Your task to perform on an android device: toggle notifications settings in the gmail app Image 0: 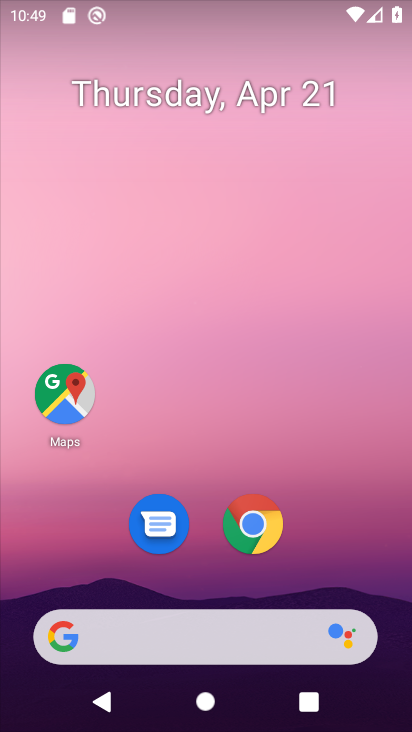
Step 0: drag from (346, 547) to (357, 110)
Your task to perform on an android device: toggle notifications settings in the gmail app Image 1: 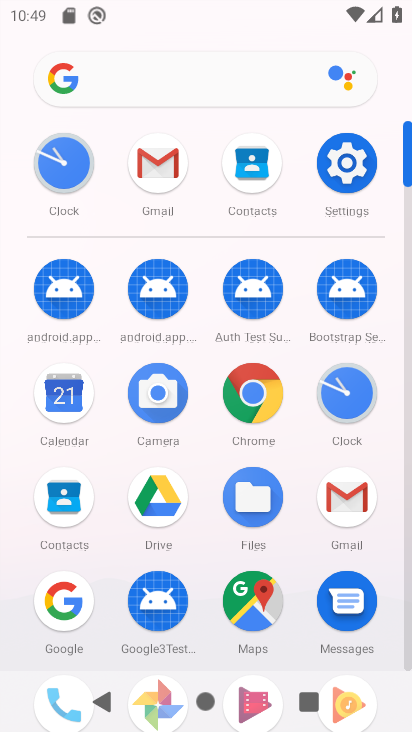
Step 1: click (157, 171)
Your task to perform on an android device: toggle notifications settings in the gmail app Image 2: 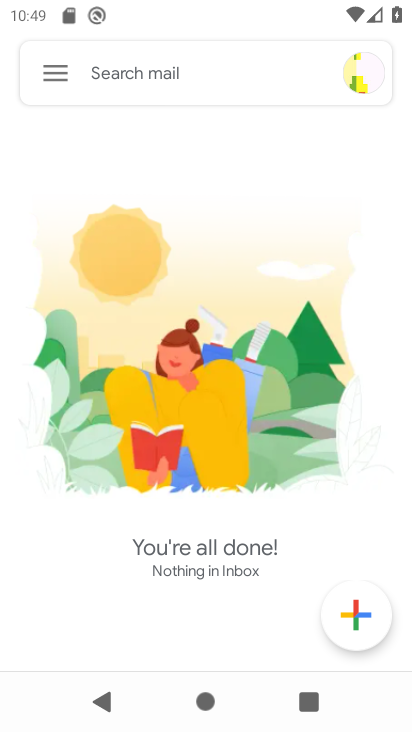
Step 2: click (60, 66)
Your task to perform on an android device: toggle notifications settings in the gmail app Image 3: 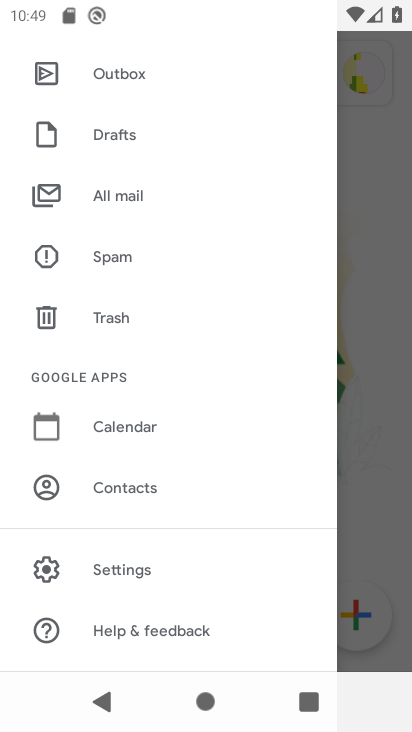
Step 3: click (131, 564)
Your task to perform on an android device: toggle notifications settings in the gmail app Image 4: 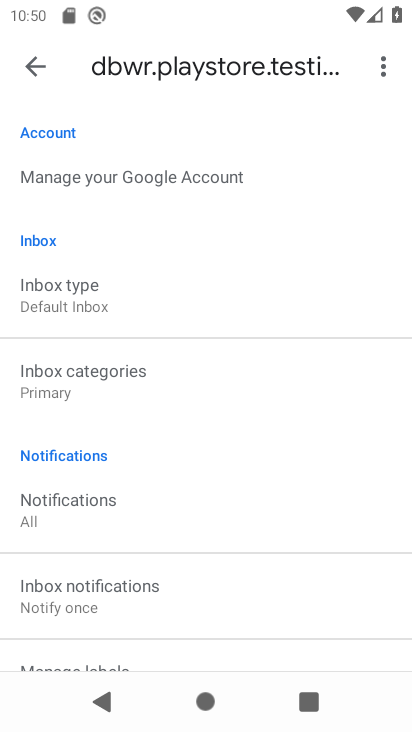
Step 4: drag from (247, 578) to (321, 95)
Your task to perform on an android device: toggle notifications settings in the gmail app Image 5: 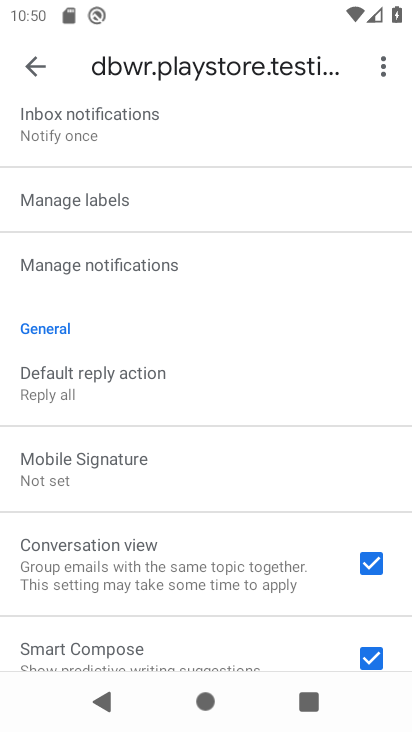
Step 5: click (238, 269)
Your task to perform on an android device: toggle notifications settings in the gmail app Image 6: 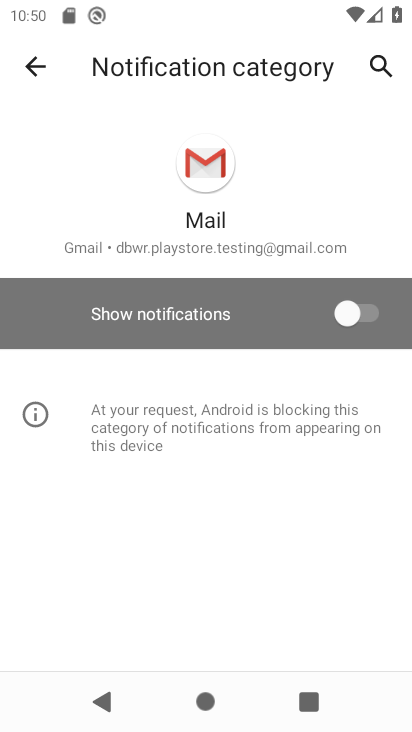
Step 6: click (365, 310)
Your task to perform on an android device: toggle notifications settings in the gmail app Image 7: 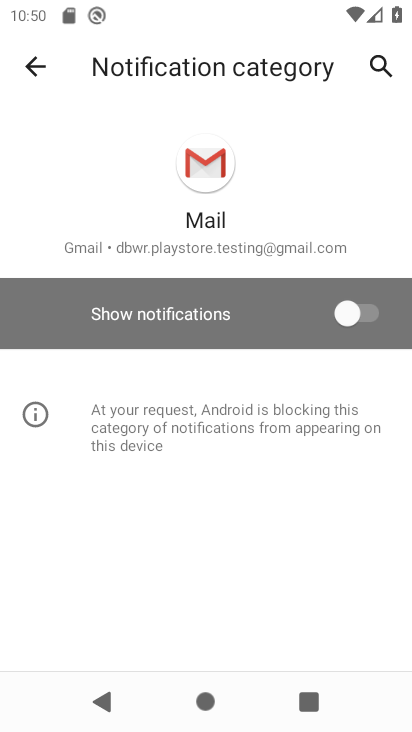
Step 7: click (340, 314)
Your task to perform on an android device: toggle notifications settings in the gmail app Image 8: 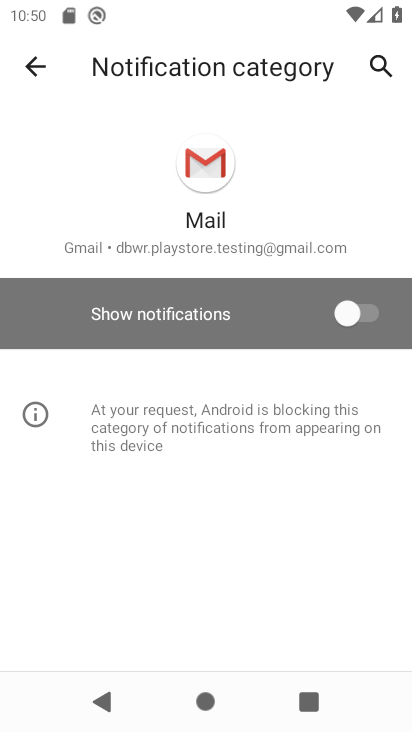
Step 8: click (39, 65)
Your task to perform on an android device: toggle notifications settings in the gmail app Image 9: 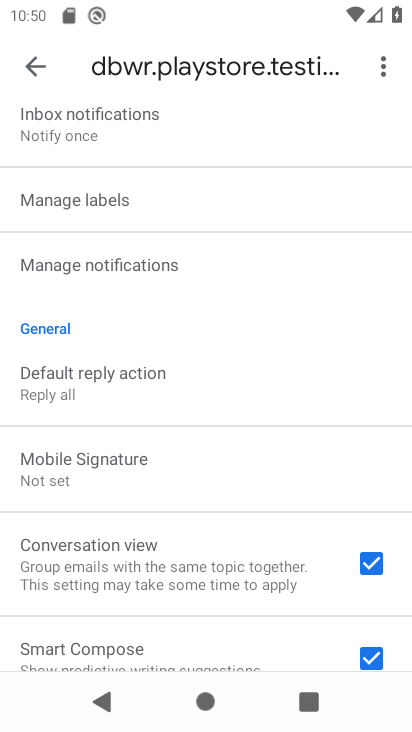
Step 9: click (38, 60)
Your task to perform on an android device: toggle notifications settings in the gmail app Image 10: 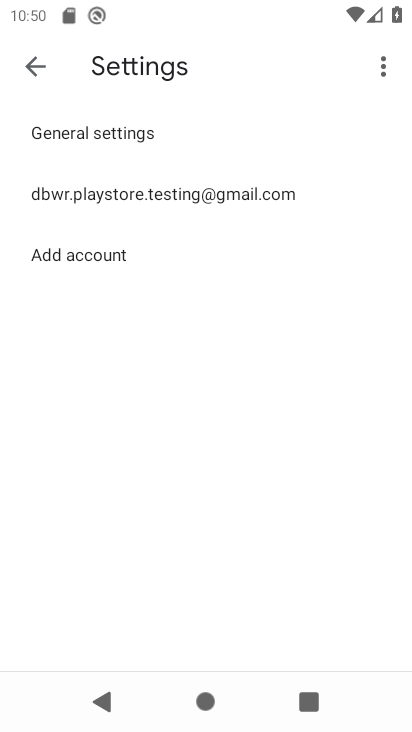
Step 10: click (109, 134)
Your task to perform on an android device: toggle notifications settings in the gmail app Image 11: 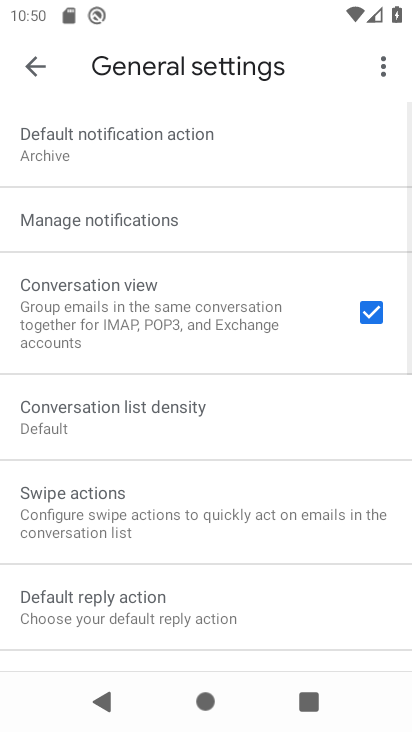
Step 11: click (139, 215)
Your task to perform on an android device: toggle notifications settings in the gmail app Image 12: 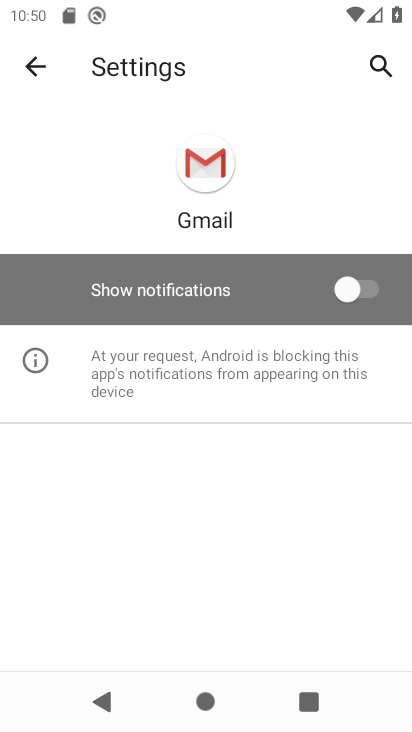
Step 12: click (370, 288)
Your task to perform on an android device: toggle notifications settings in the gmail app Image 13: 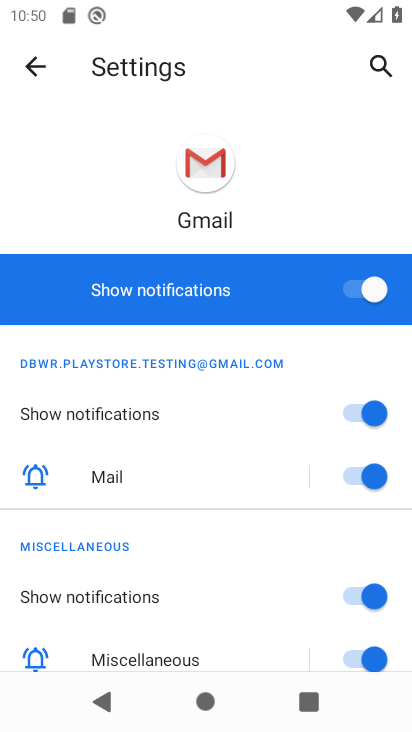
Step 13: task complete